Your task to perform on an android device: add a contact Image 0: 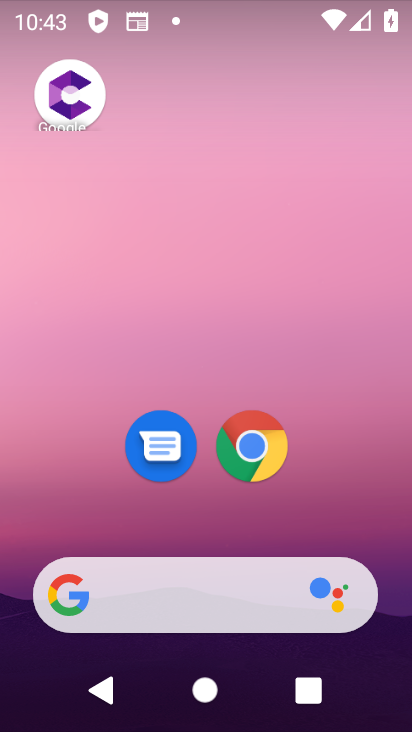
Step 0: drag from (58, 552) to (137, 184)
Your task to perform on an android device: add a contact Image 1: 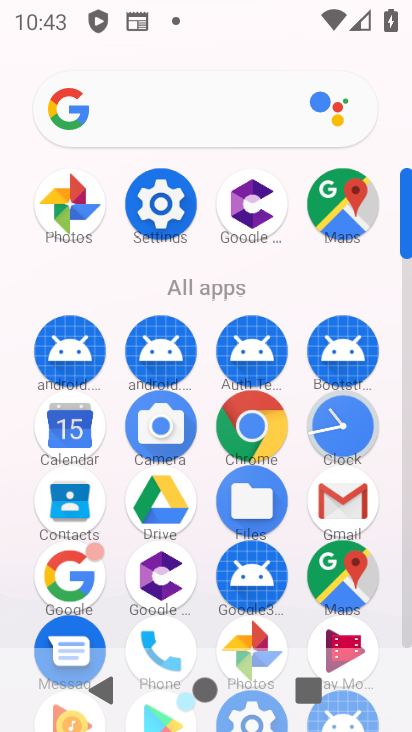
Step 1: click (60, 509)
Your task to perform on an android device: add a contact Image 2: 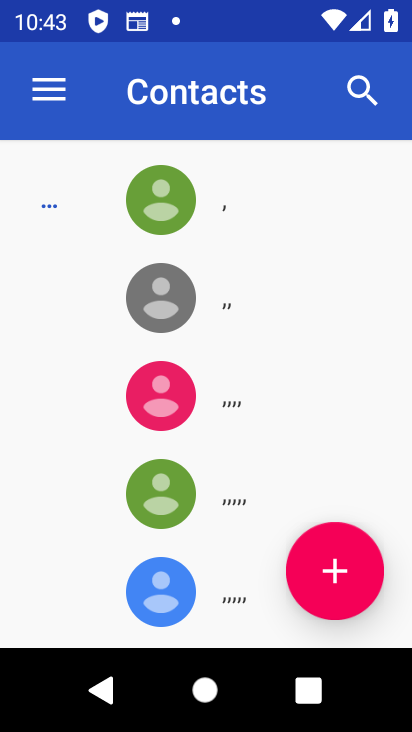
Step 2: click (356, 570)
Your task to perform on an android device: add a contact Image 3: 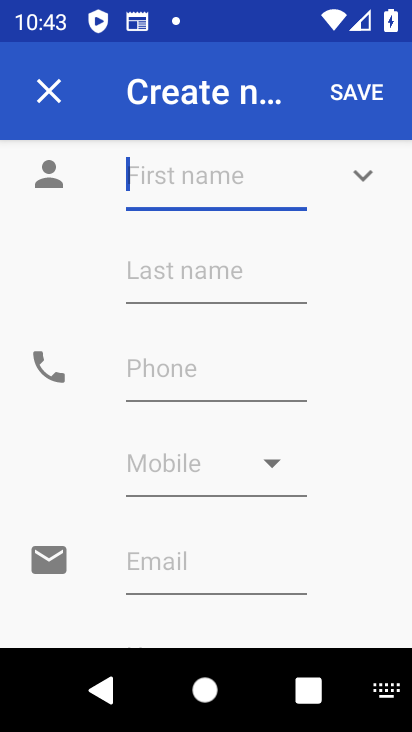
Step 3: type "xcxcxc"
Your task to perform on an android device: add a contact Image 4: 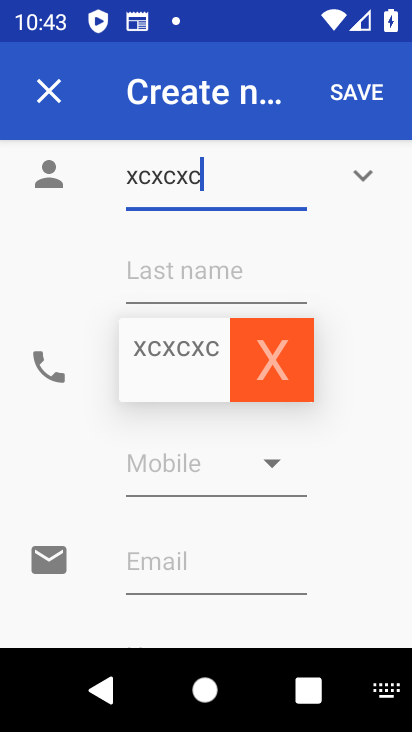
Step 4: type "xc"
Your task to perform on an android device: add a contact Image 5: 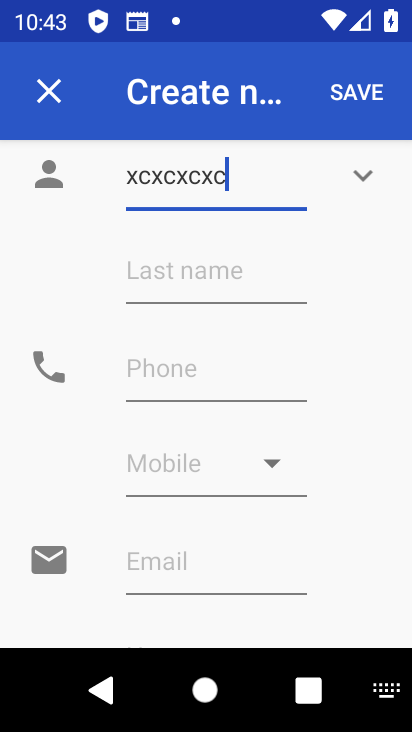
Step 5: click (175, 382)
Your task to perform on an android device: add a contact Image 6: 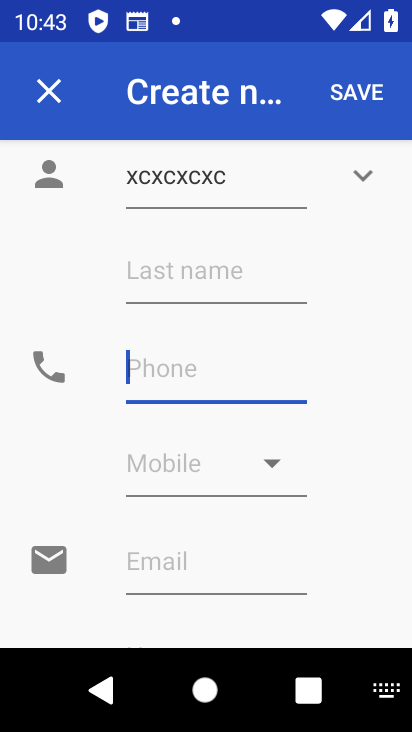
Step 6: type "2992442567"
Your task to perform on an android device: add a contact Image 7: 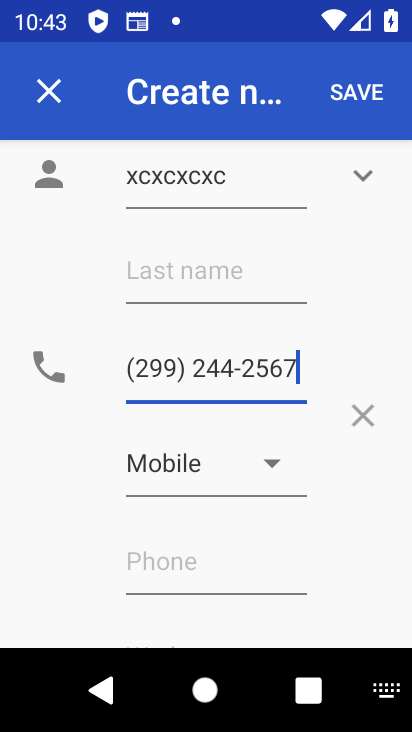
Step 7: click (376, 92)
Your task to perform on an android device: add a contact Image 8: 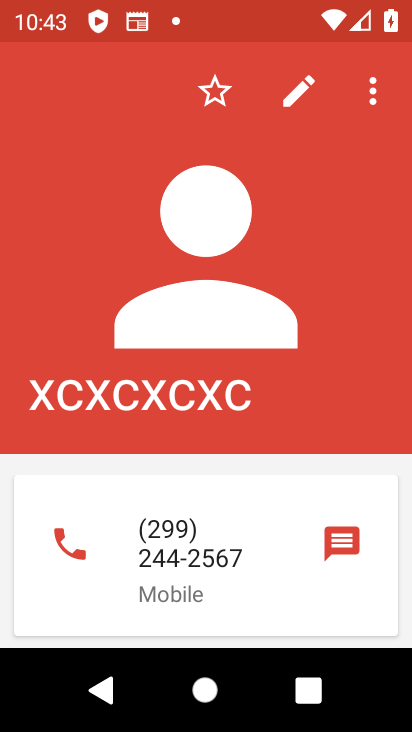
Step 8: task complete